Your task to perform on an android device: open a new tab in the chrome app Image 0: 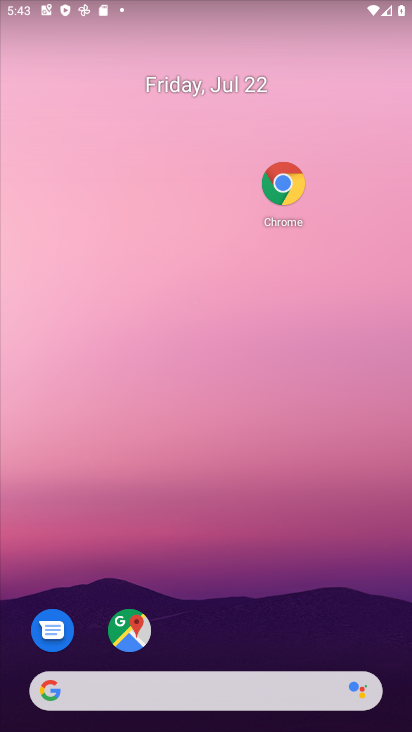
Step 0: click (273, 199)
Your task to perform on an android device: open a new tab in the chrome app Image 1: 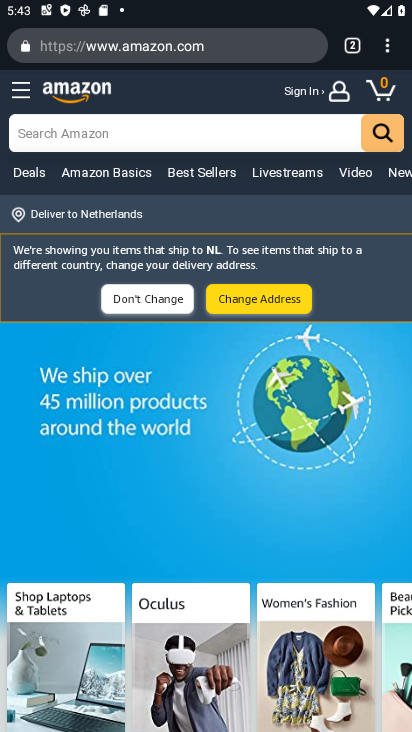
Step 1: click (346, 45)
Your task to perform on an android device: open a new tab in the chrome app Image 2: 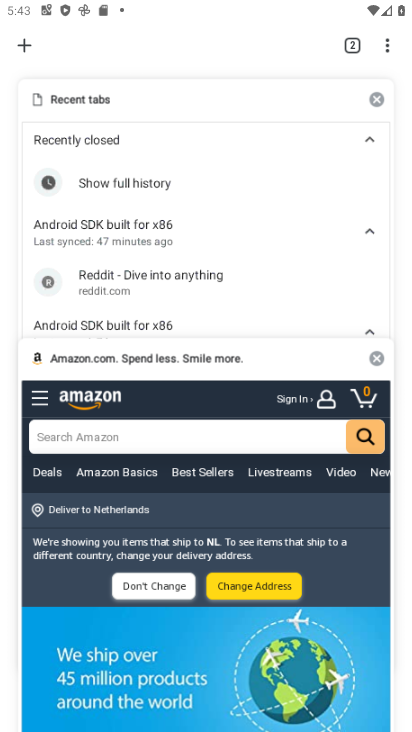
Step 2: click (22, 45)
Your task to perform on an android device: open a new tab in the chrome app Image 3: 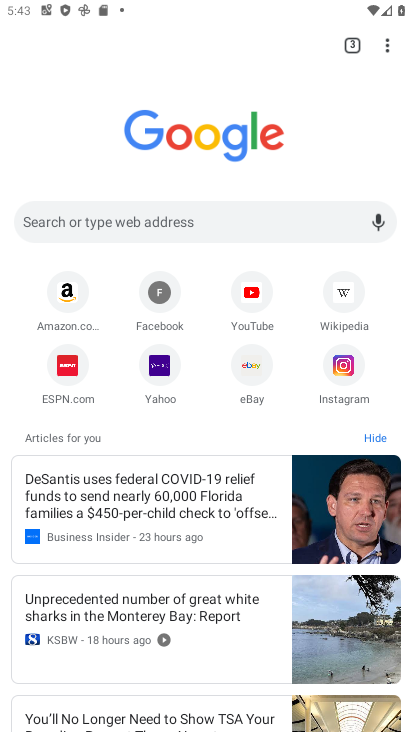
Step 3: task complete